Your task to perform on an android device: turn on airplane mode Image 0: 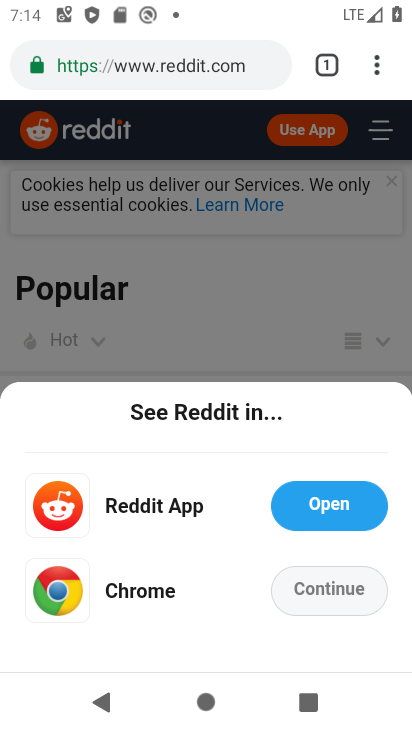
Step 0: press back button
Your task to perform on an android device: turn on airplane mode Image 1: 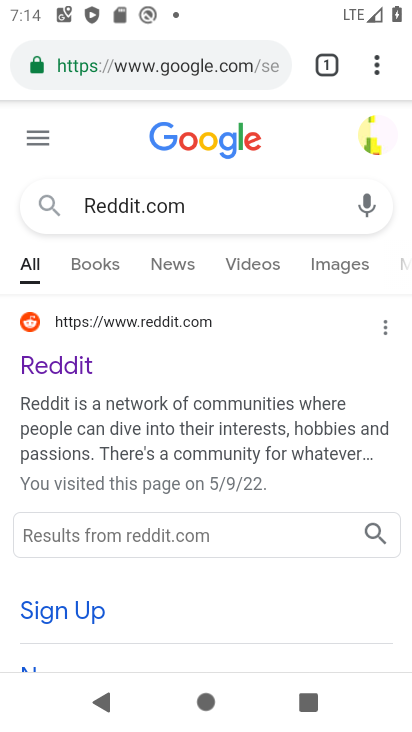
Step 1: press back button
Your task to perform on an android device: turn on airplane mode Image 2: 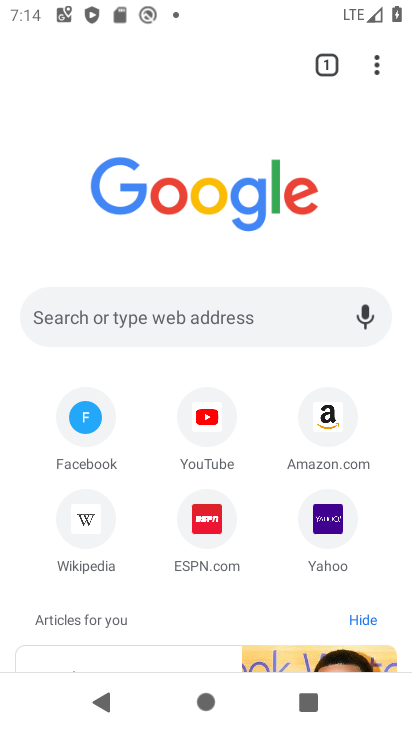
Step 2: press back button
Your task to perform on an android device: turn on airplane mode Image 3: 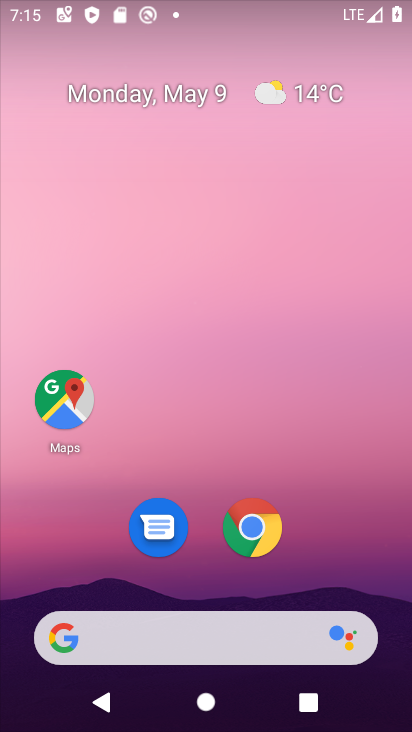
Step 3: drag from (353, 551) to (242, 134)
Your task to perform on an android device: turn on airplane mode Image 4: 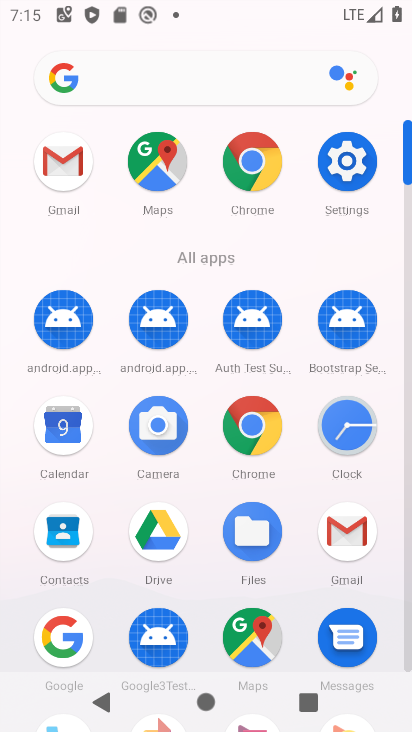
Step 4: click (347, 162)
Your task to perform on an android device: turn on airplane mode Image 5: 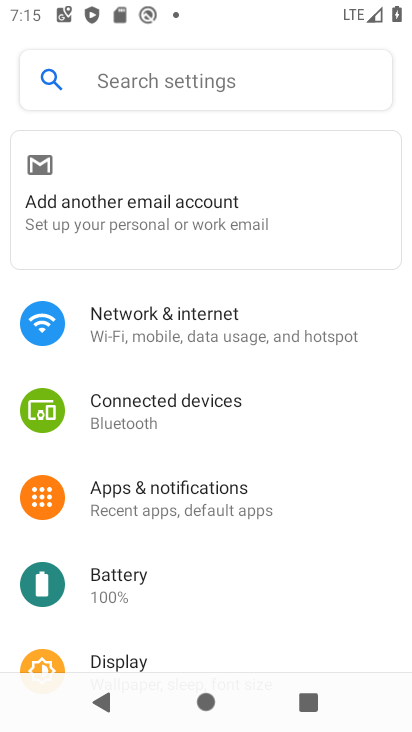
Step 5: click (148, 316)
Your task to perform on an android device: turn on airplane mode Image 6: 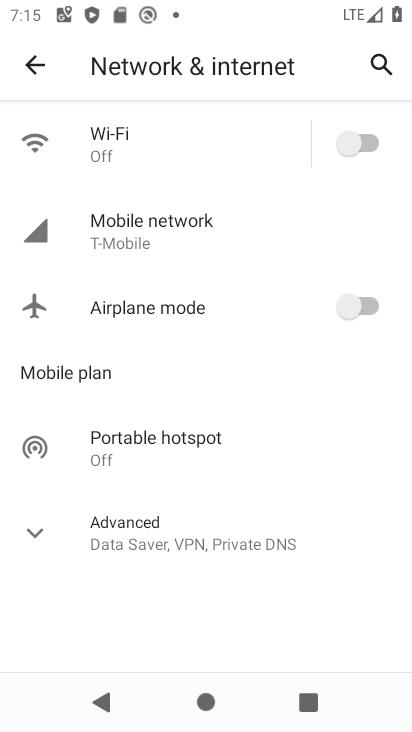
Step 6: click (345, 308)
Your task to perform on an android device: turn on airplane mode Image 7: 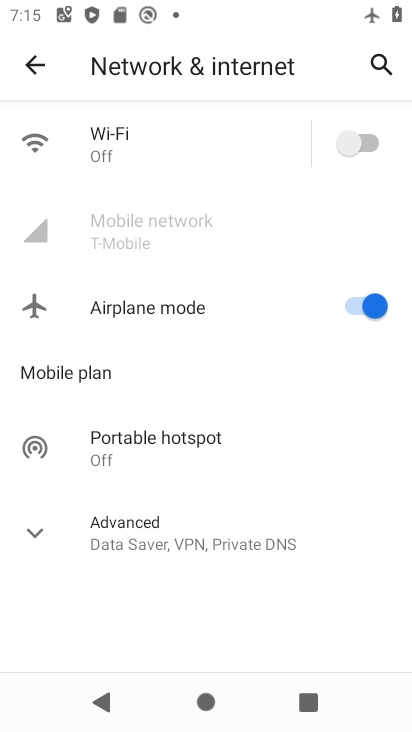
Step 7: task complete